Your task to perform on an android device: Show me popular games on the Play Store Image 0: 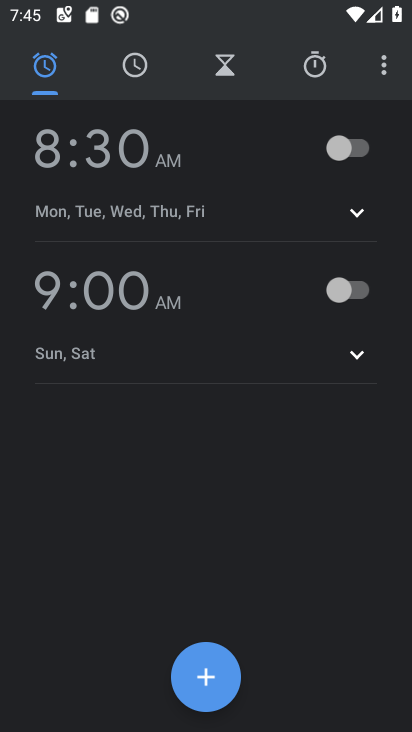
Step 0: press back button
Your task to perform on an android device: Show me popular games on the Play Store Image 1: 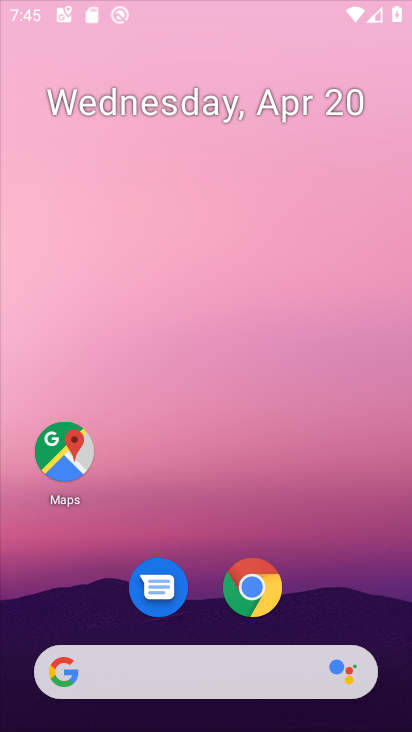
Step 1: press back button
Your task to perform on an android device: Show me popular games on the Play Store Image 2: 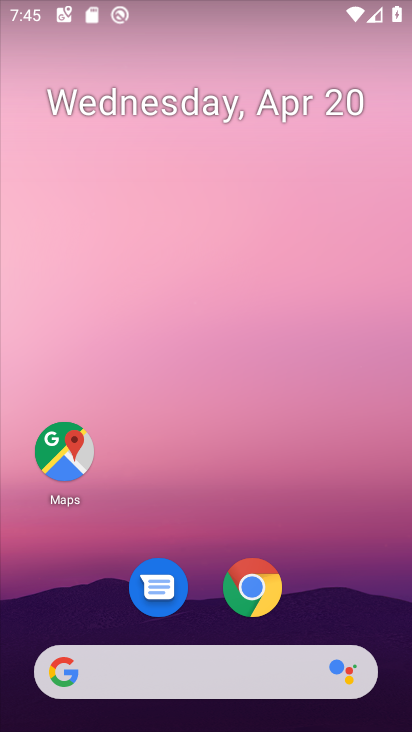
Step 2: drag from (347, 595) to (272, 172)
Your task to perform on an android device: Show me popular games on the Play Store Image 3: 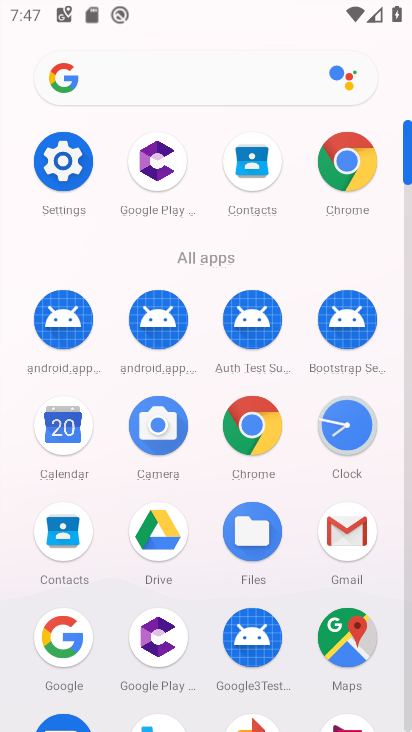
Step 3: click (408, 614)
Your task to perform on an android device: Show me popular games on the Play Store Image 4: 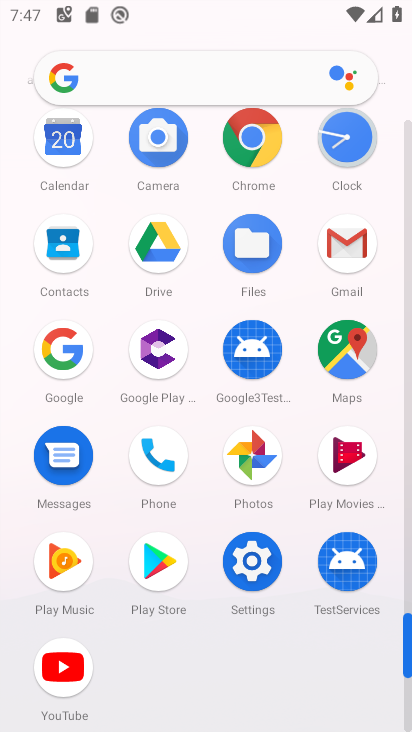
Step 4: click (165, 573)
Your task to perform on an android device: Show me popular games on the Play Store Image 5: 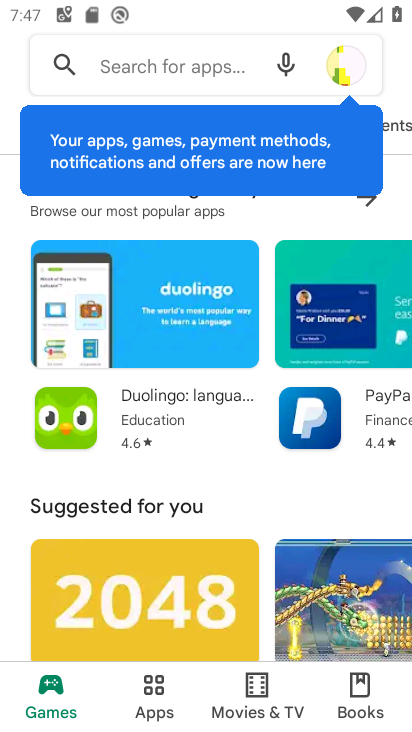
Step 5: task complete